Your task to perform on an android device: allow notifications from all sites in the chrome app Image 0: 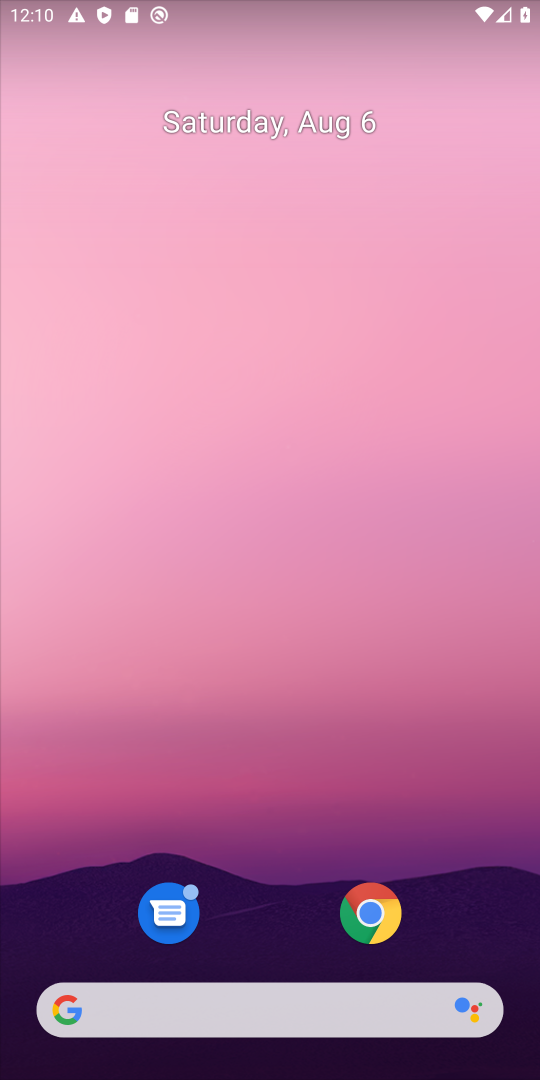
Step 0: drag from (449, 898) to (471, 269)
Your task to perform on an android device: allow notifications from all sites in the chrome app Image 1: 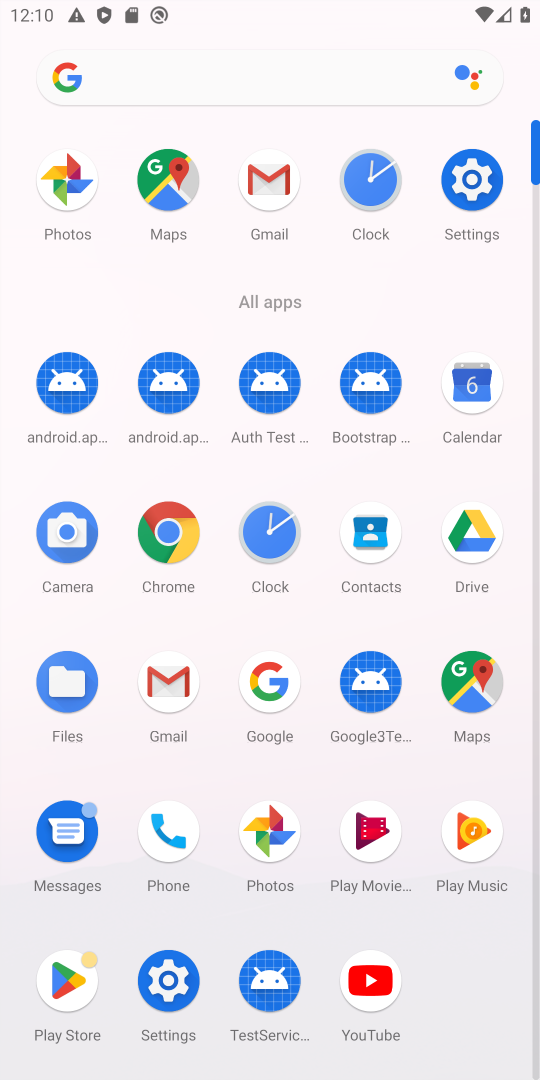
Step 1: click (162, 530)
Your task to perform on an android device: allow notifications from all sites in the chrome app Image 2: 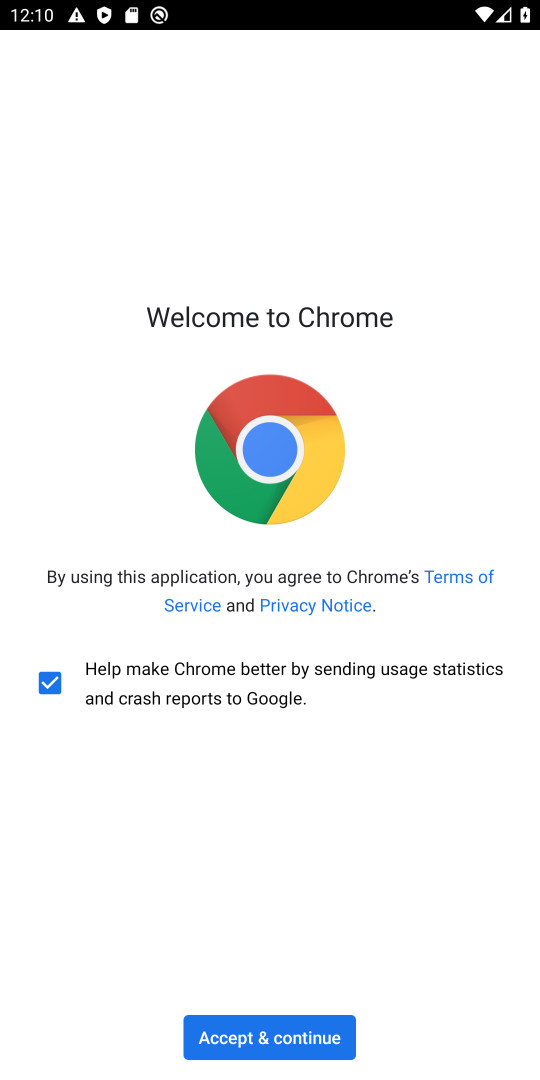
Step 2: click (223, 1035)
Your task to perform on an android device: allow notifications from all sites in the chrome app Image 3: 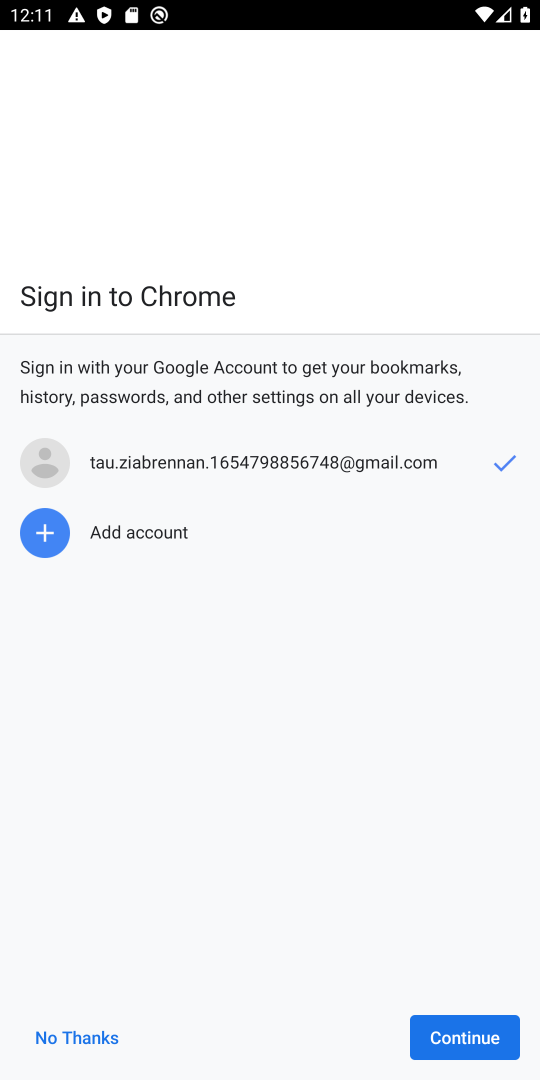
Step 3: click (474, 1033)
Your task to perform on an android device: allow notifications from all sites in the chrome app Image 4: 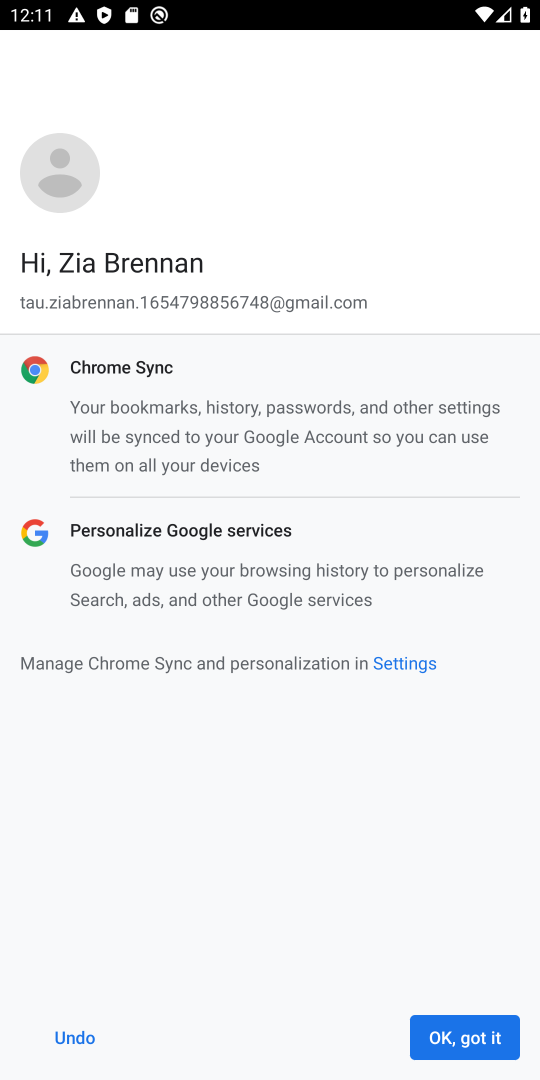
Step 4: click (474, 1033)
Your task to perform on an android device: allow notifications from all sites in the chrome app Image 5: 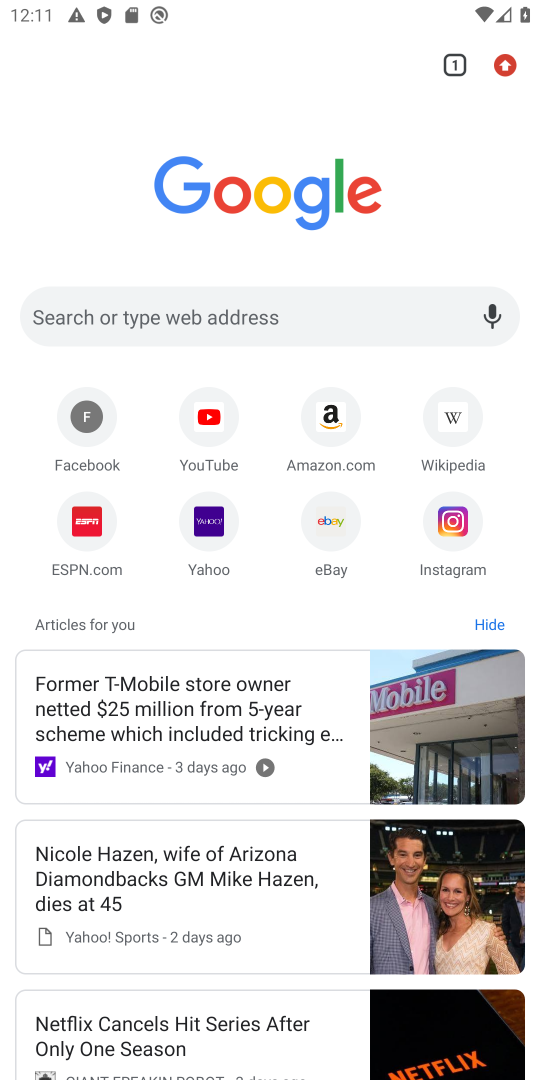
Step 5: click (502, 67)
Your task to perform on an android device: allow notifications from all sites in the chrome app Image 6: 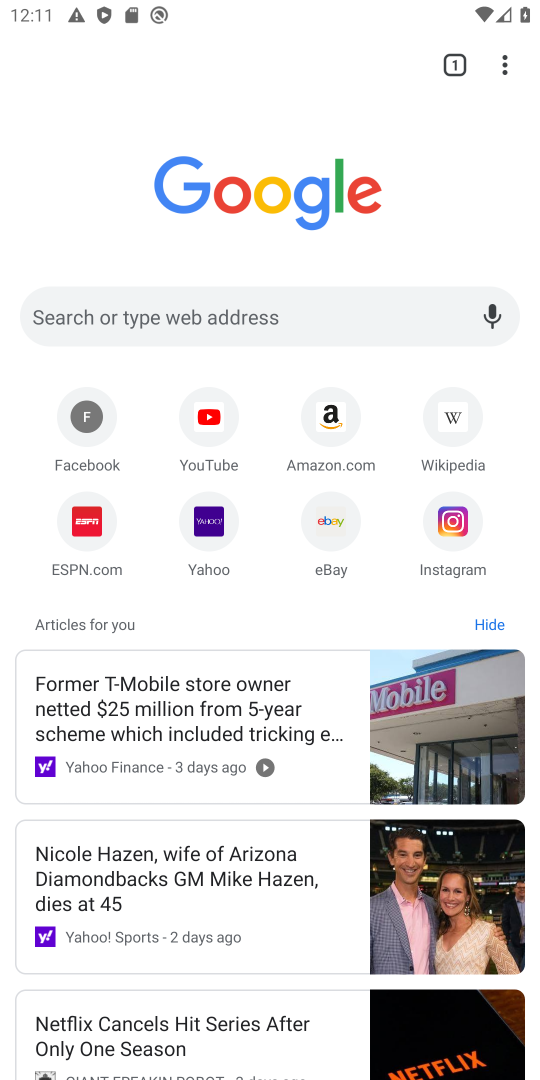
Step 6: click (504, 71)
Your task to perform on an android device: allow notifications from all sites in the chrome app Image 7: 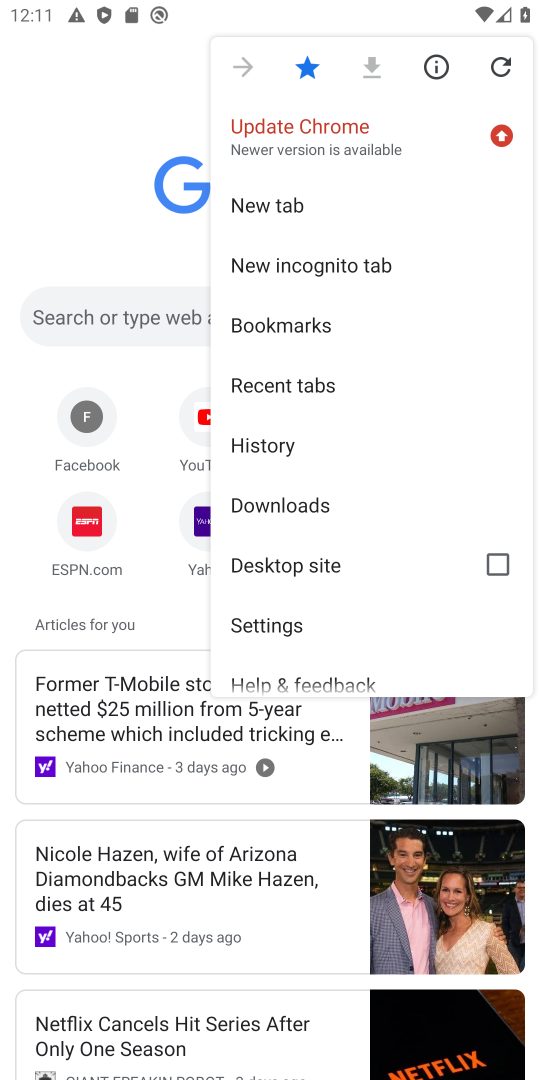
Step 7: click (284, 630)
Your task to perform on an android device: allow notifications from all sites in the chrome app Image 8: 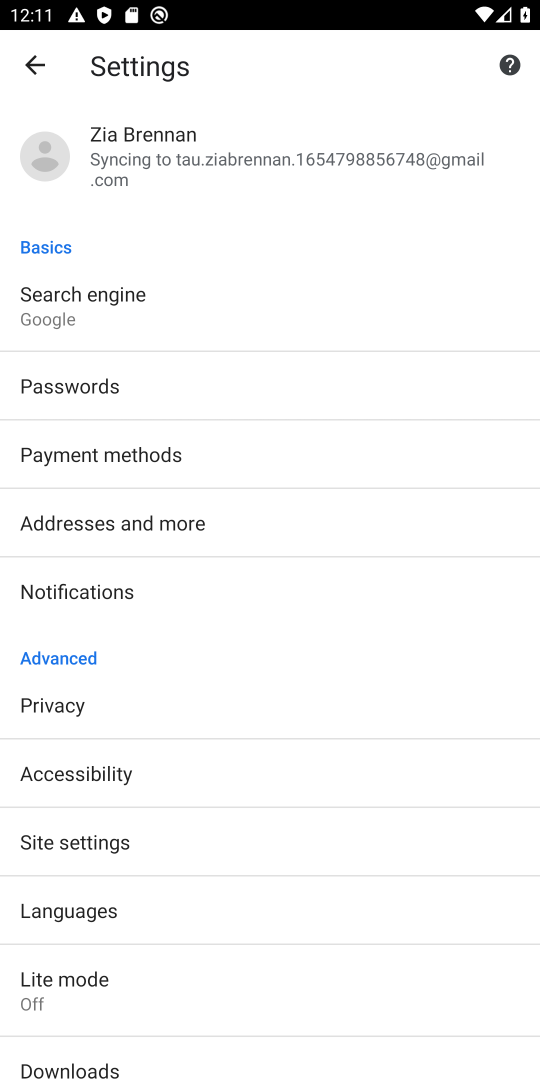
Step 8: click (246, 844)
Your task to perform on an android device: allow notifications from all sites in the chrome app Image 9: 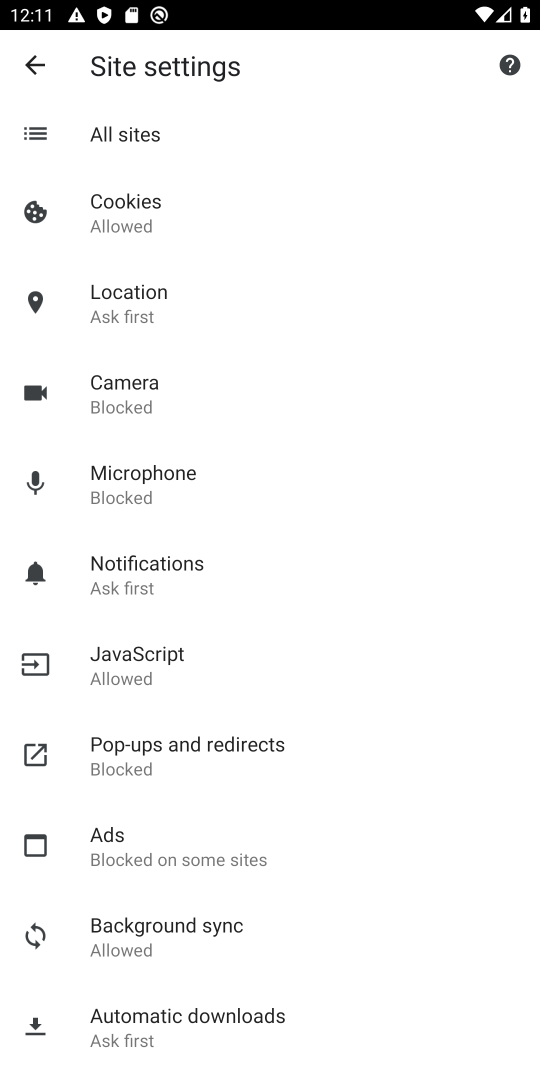
Step 9: click (205, 558)
Your task to perform on an android device: allow notifications from all sites in the chrome app Image 10: 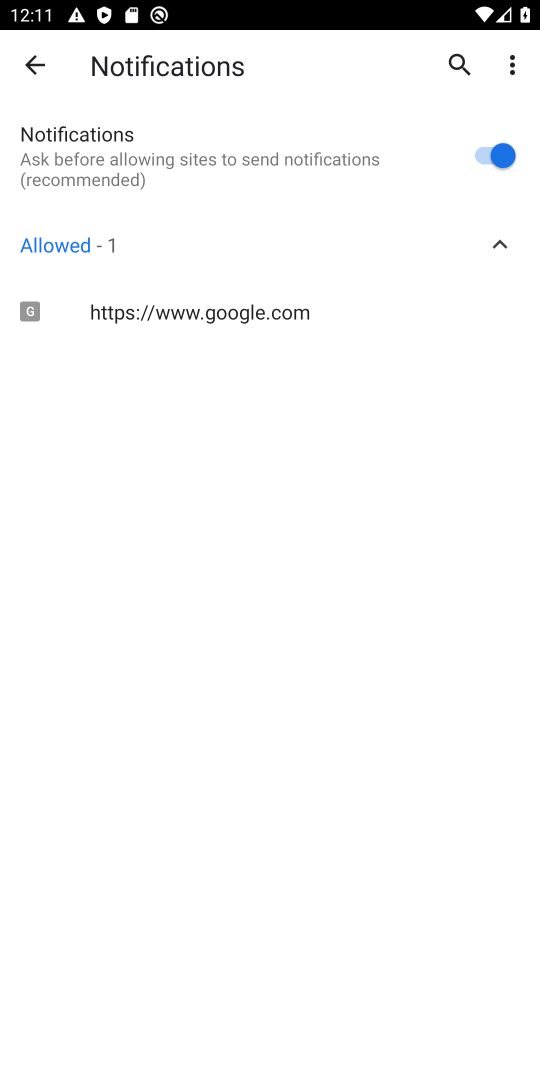
Step 10: task complete